Your task to perform on an android device: Open display settings Image 0: 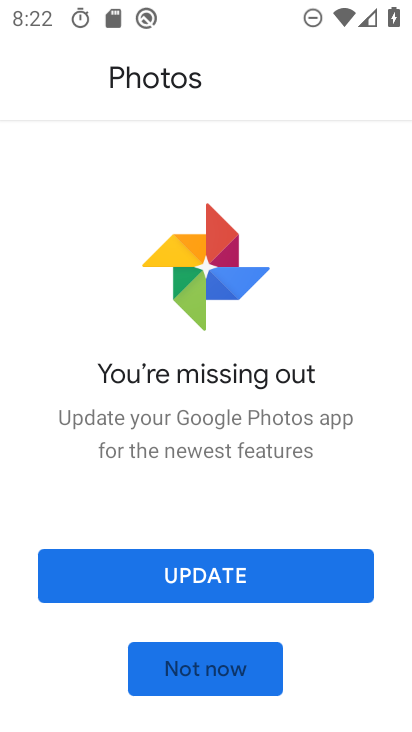
Step 0: press home button
Your task to perform on an android device: Open display settings Image 1: 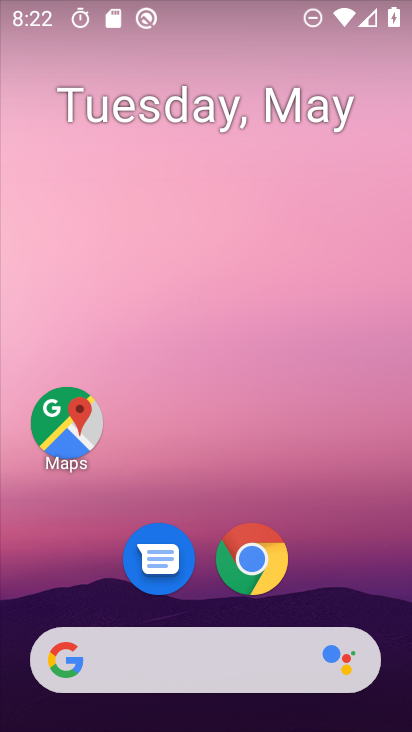
Step 1: drag from (399, 647) to (230, 0)
Your task to perform on an android device: Open display settings Image 2: 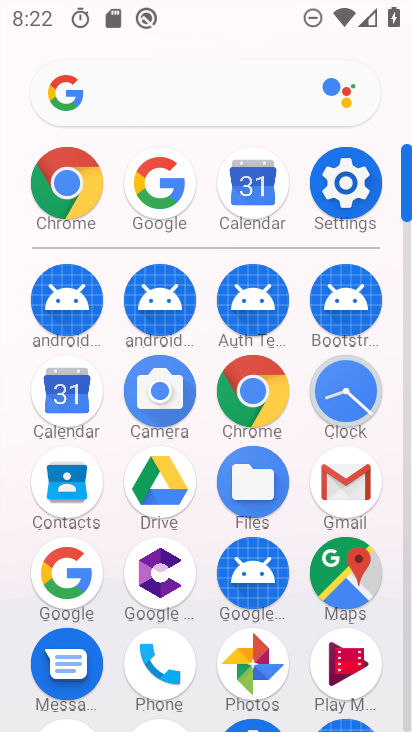
Step 2: click (338, 165)
Your task to perform on an android device: Open display settings Image 3: 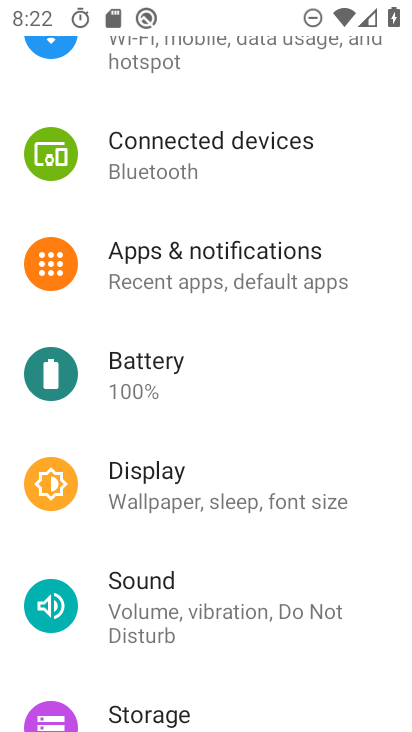
Step 3: click (197, 481)
Your task to perform on an android device: Open display settings Image 4: 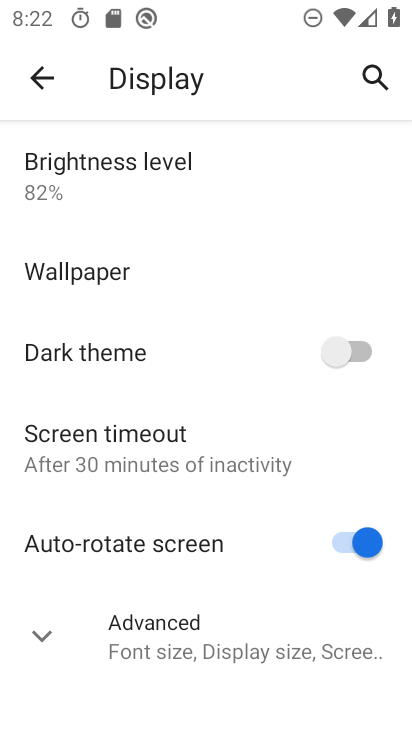
Step 4: task complete